Your task to perform on an android device: see sites visited before in the chrome app Image 0: 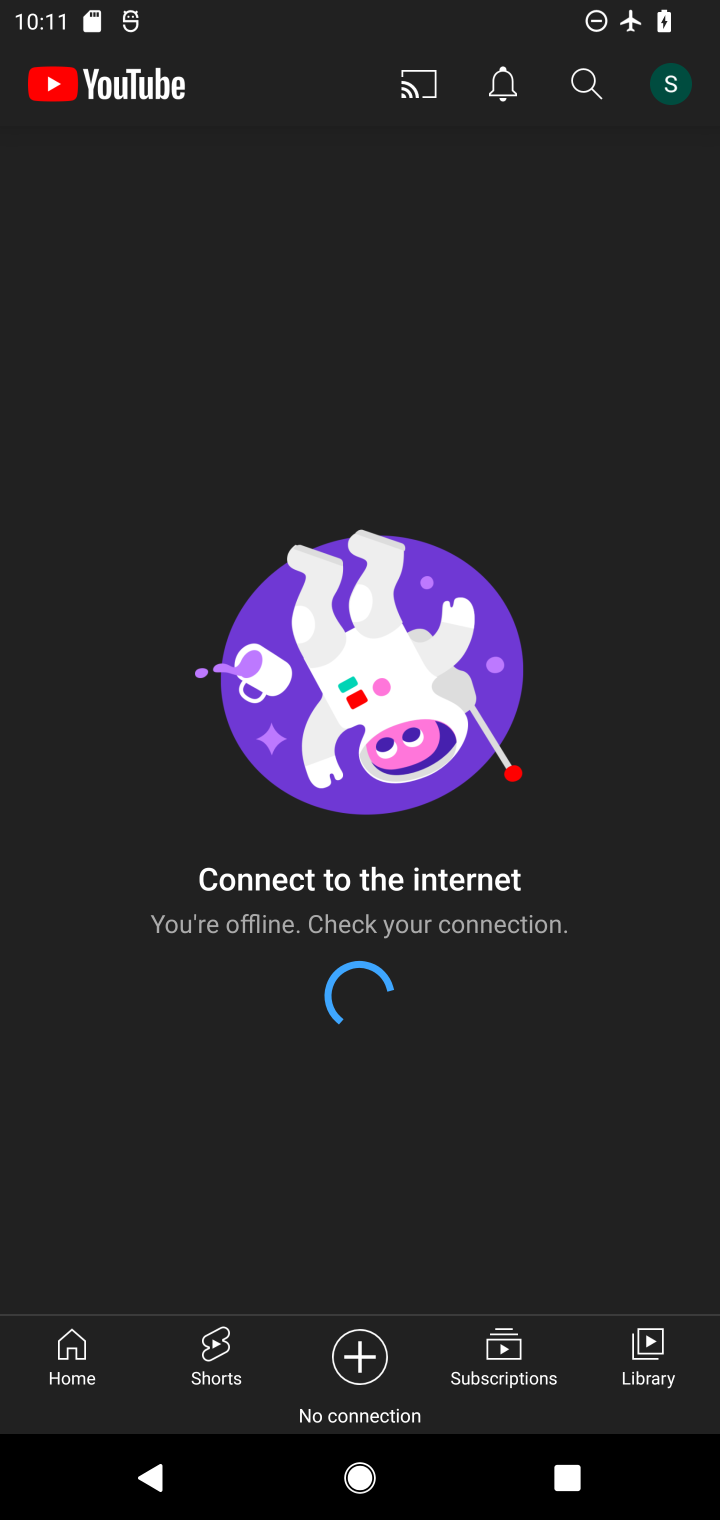
Step 0: press home button
Your task to perform on an android device: see sites visited before in the chrome app Image 1: 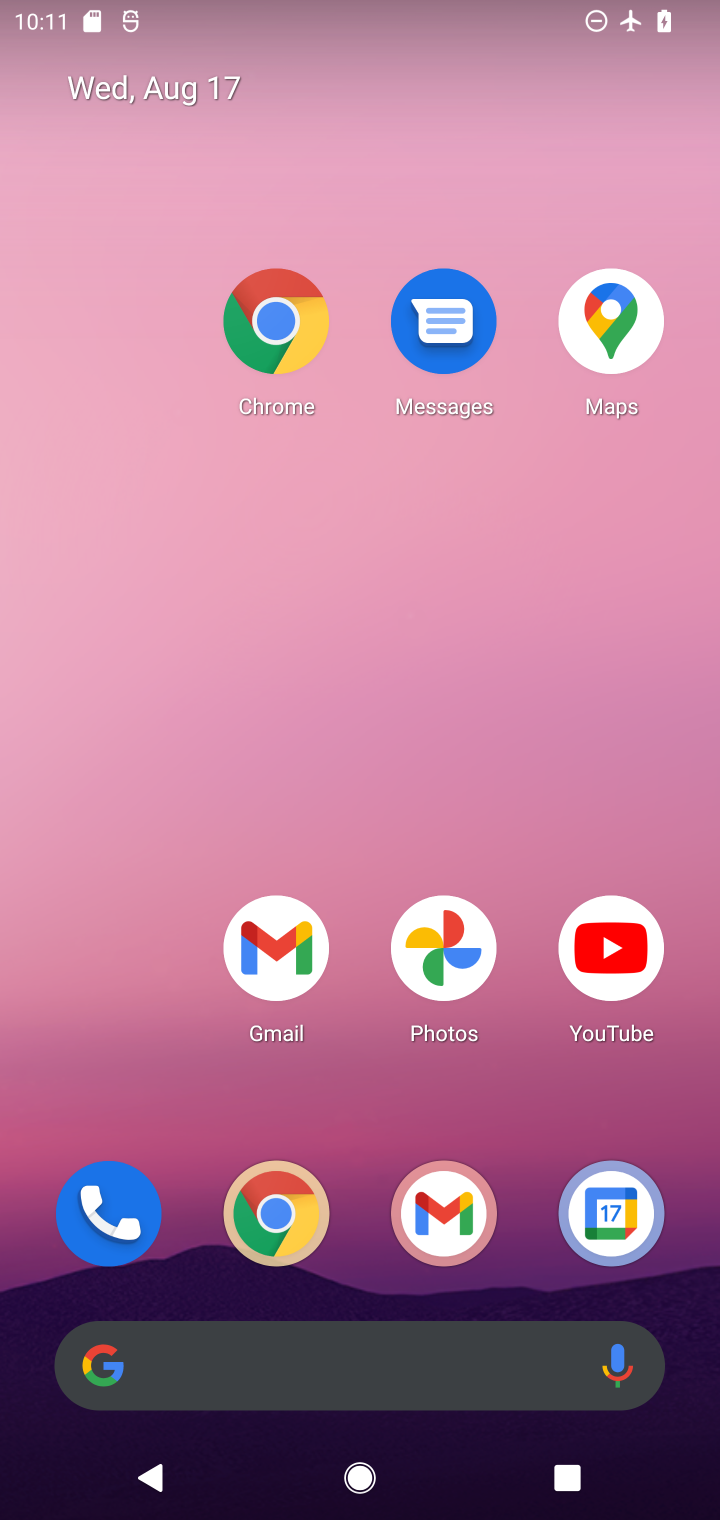
Step 1: click (260, 1240)
Your task to perform on an android device: see sites visited before in the chrome app Image 2: 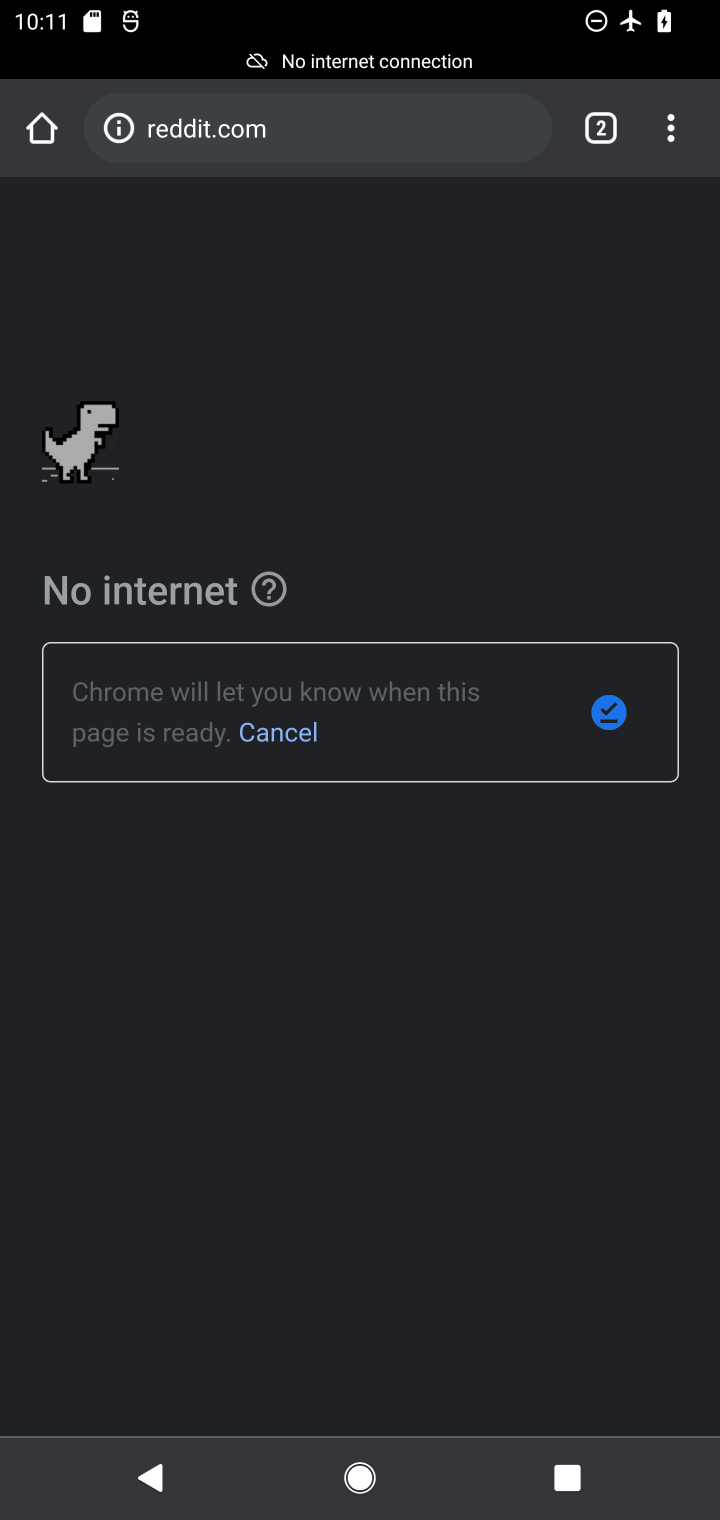
Step 2: click (678, 144)
Your task to perform on an android device: see sites visited before in the chrome app Image 3: 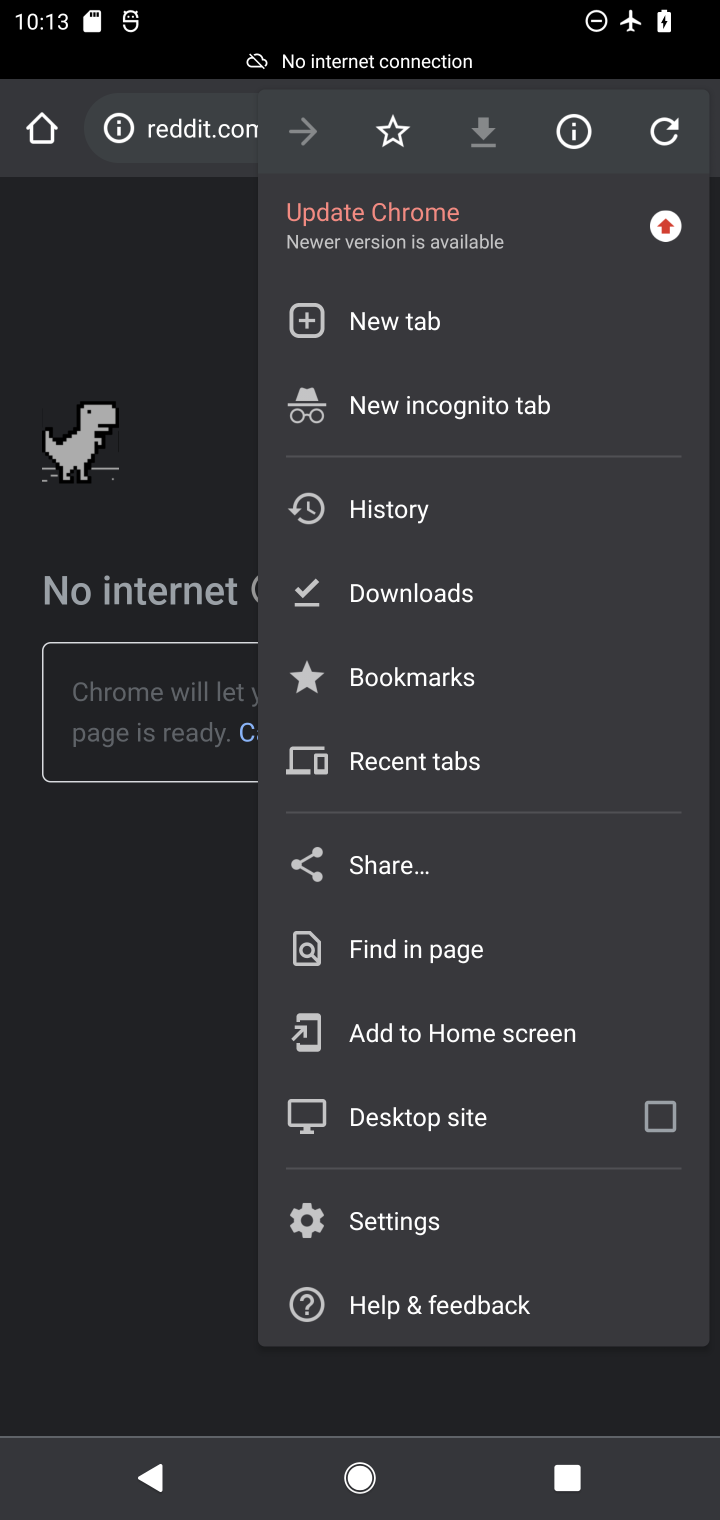
Step 3: click (439, 758)
Your task to perform on an android device: see sites visited before in the chrome app Image 4: 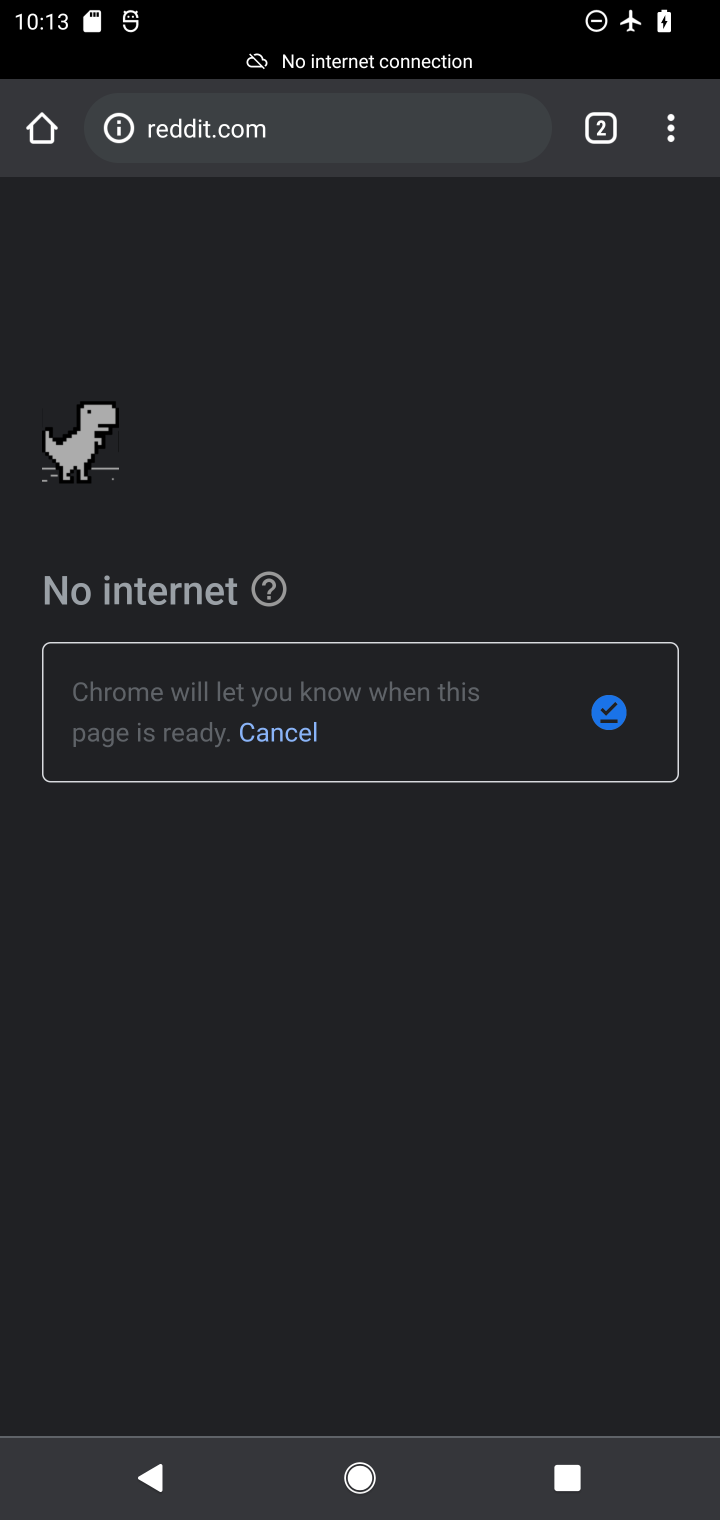
Step 4: task complete